Your task to perform on an android device: turn off sleep mode Image 0: 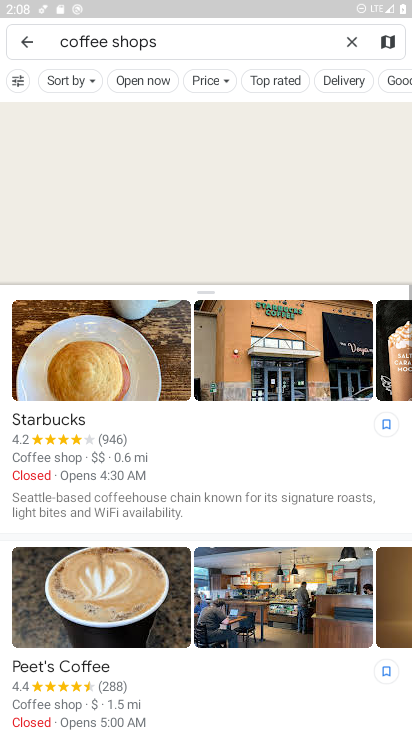
Step 0: press home button
Your task to perform on an android device: turn off sleep mode Image 1: 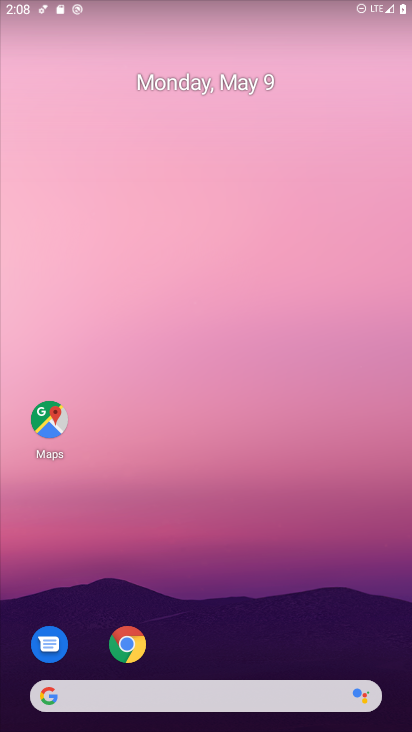
Step 1: task complete